Your task to perform on an android device: turn on priority inbox in the gmail app Image 0: 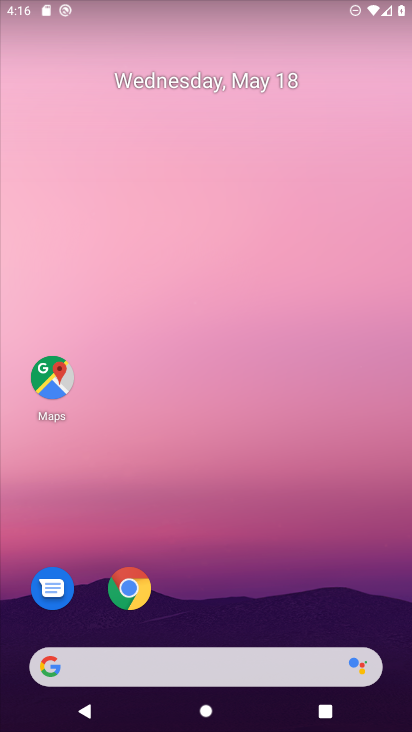
Step 0: drag from (201, 601) to (251, 103)
Your task to perform on an android device: turn on priority inbox in the gmail app Image 1: 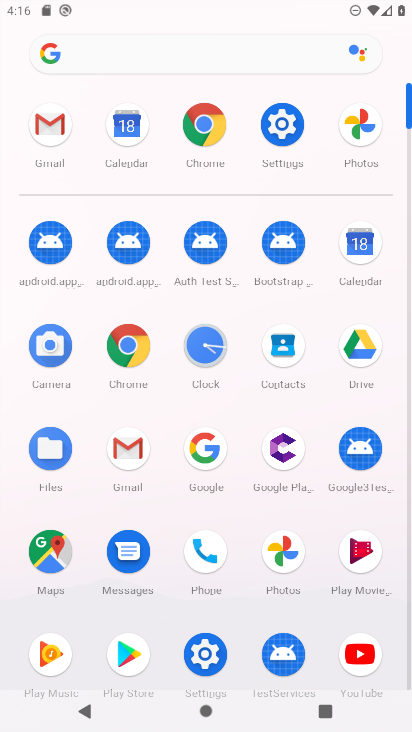
Step 1: click (129, 486)
Your task to perform on an android device: turn on priority inbox in the gmail app Image 2: 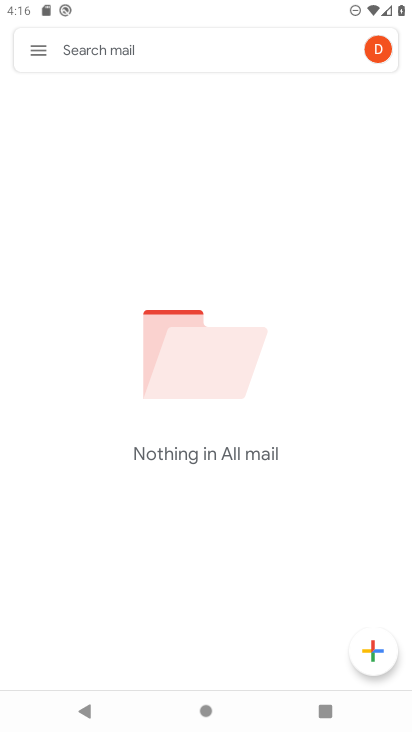
Step 2: click (47, 62)
Your task to perform on an android device: turn on priority inbox in the gmail app Image 3: 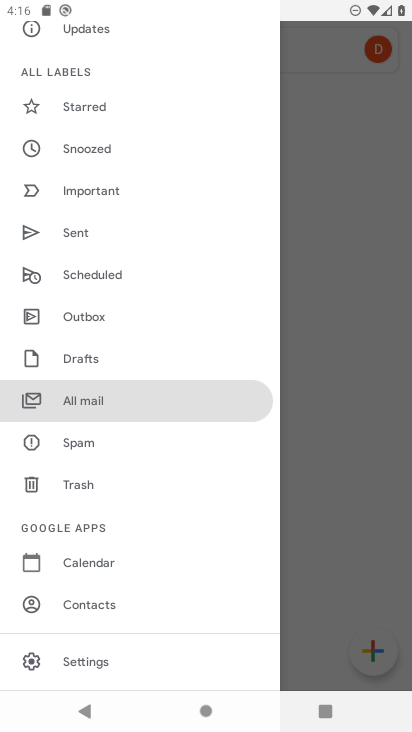
Step 3: click (80, 657)
Your task to perform on an android device: turn on priority inbox in the gmail app Image 4: 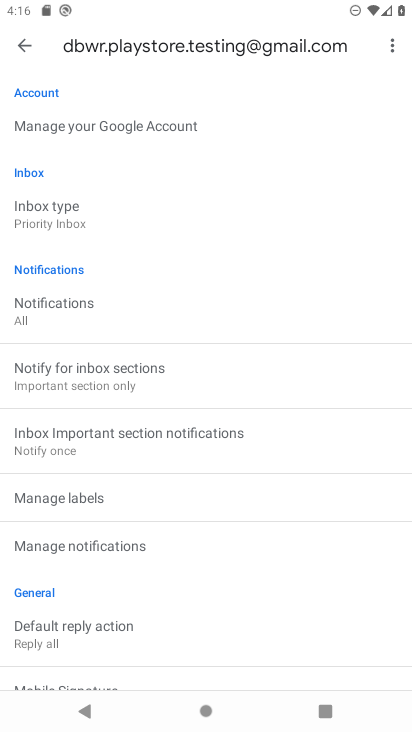
Step 4: task complete